Your task to perform on an android device: Search for Italian restaurants on Maps Image 0: 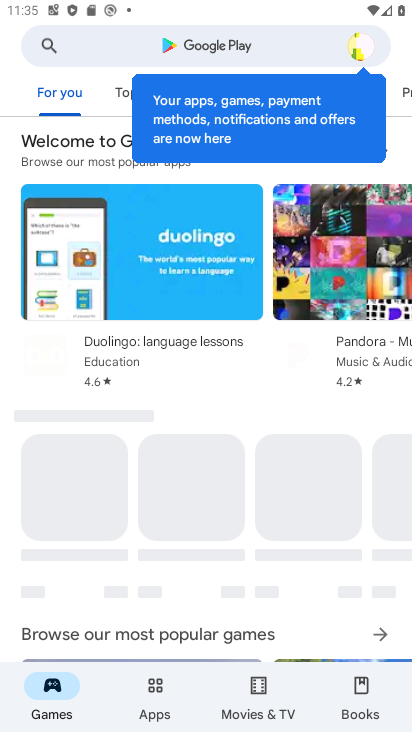
Step 0: press home button
Your task to perform on an android device: Search for Italian restaurants on Maps Image 1: 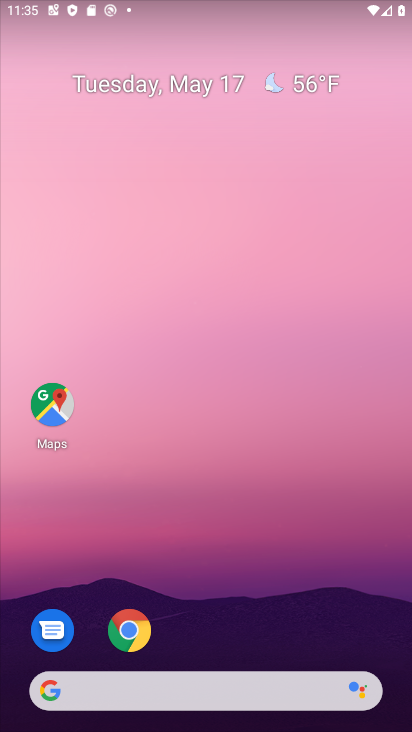
Step 1: drag from (287, 564) to (294, 155)
Your task to perform on an android device: Search for Italian restaurants on Maps Image 2: 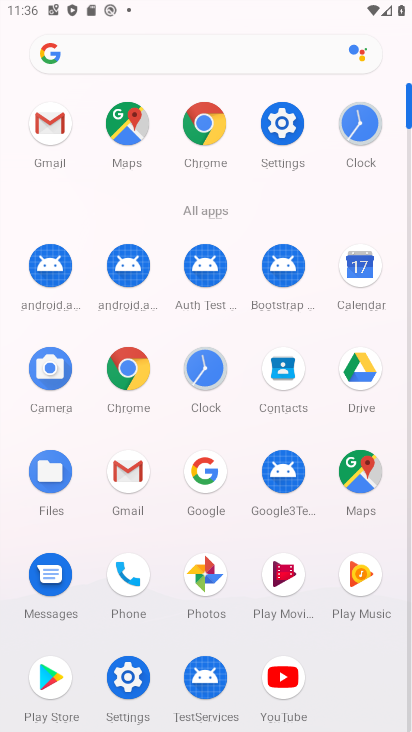
Step 2: click (370, 465)
Your task to perform on an android device: Search for Italian restaurants on Maps Image 3: 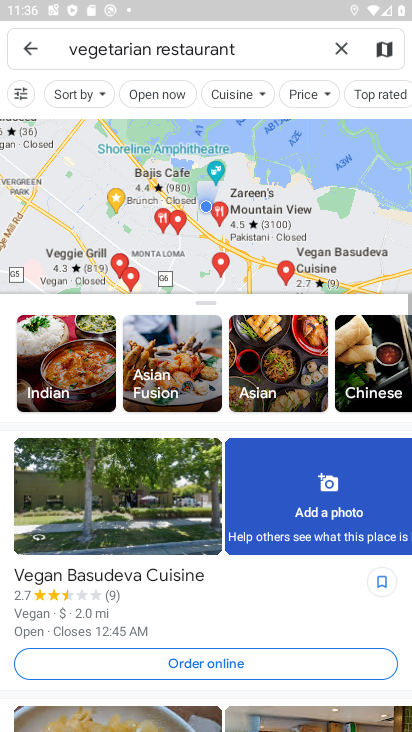
Step 3: click (353, 36)
Your task to perform on an android device: Search for Italian restaurants on Maps Image 4: 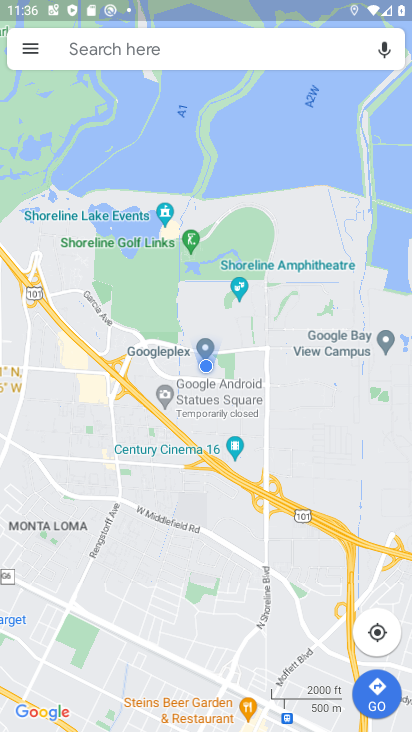
Step 4: click (257, 50)
Your task to perform on an android device: Search for Italian restaurants on Maps Image 5: 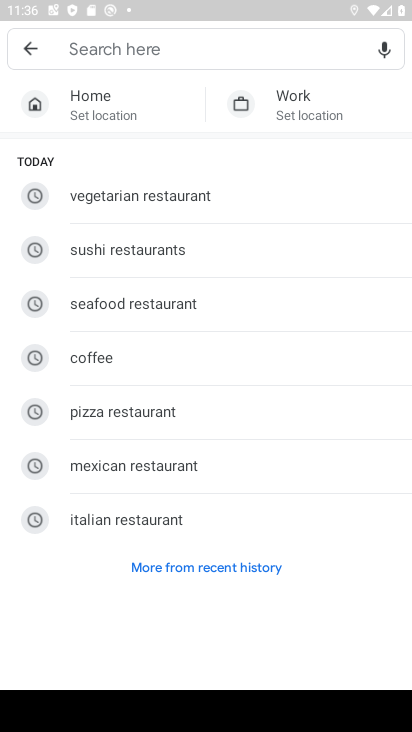
Step 5: type "italian restaurants"
Your task to perform on an android device: Search for Italian restaurants on Maps Image 6: 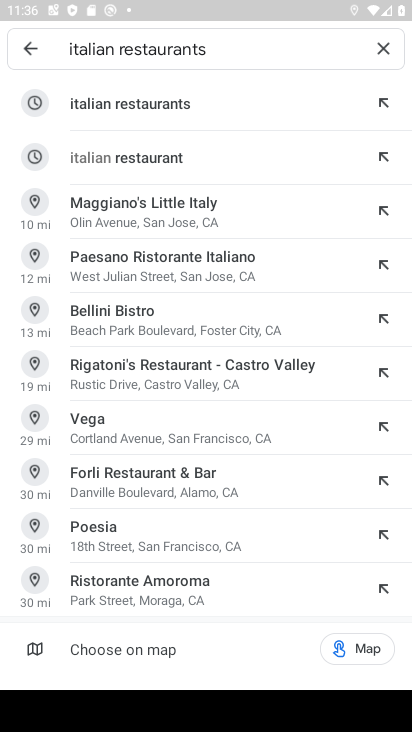
Step 6: click (178, 113)
Your task to perform on an android device: Search for Italian restaurants on Maps Image 7: 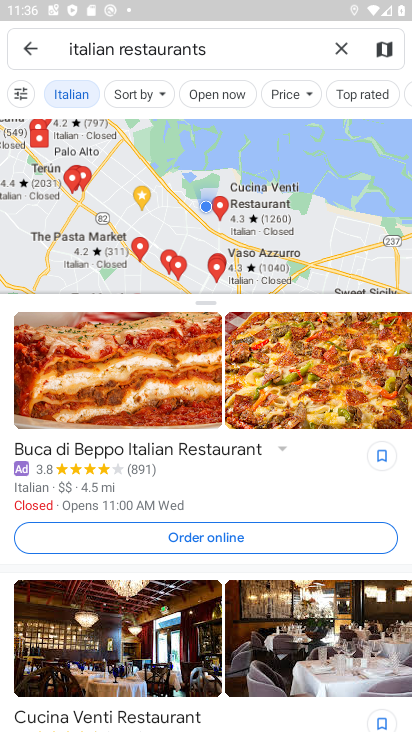
Step 7: task complete